Your task to perform on an android device: Open the stopwatch Image 0: 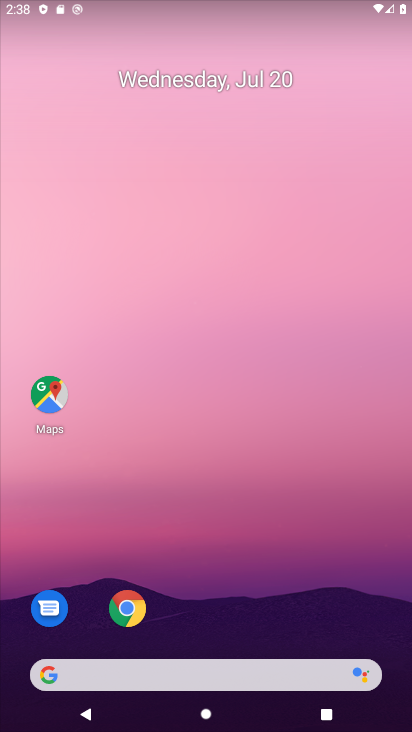
Step 0: drag from (278, 627) to (208, 78)
Your task to perform on an android device: Open the stopwatch Image 1: 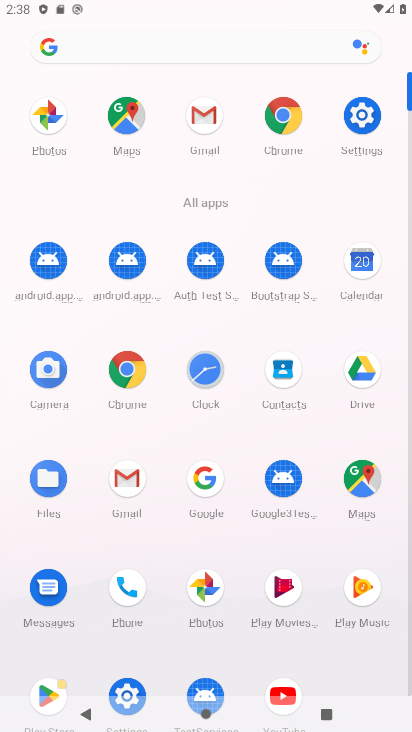
Step 1: click (196, 362)
Your task to perform on an android device: Open the stopwatch Image 2: 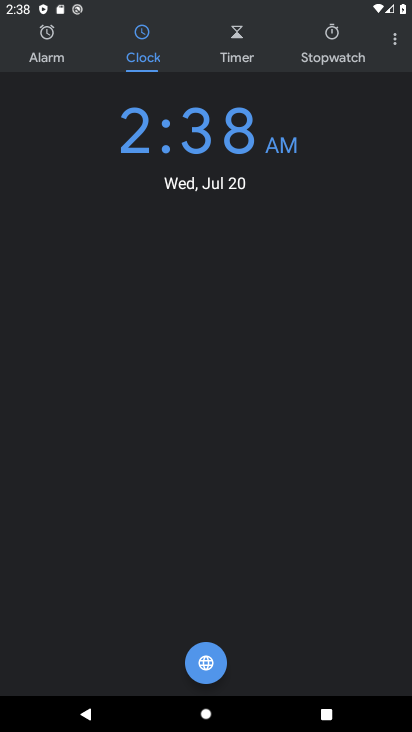
Step 2: click (320, 35)
Your task to perform on an android device: Open the stopwatch Image 3: 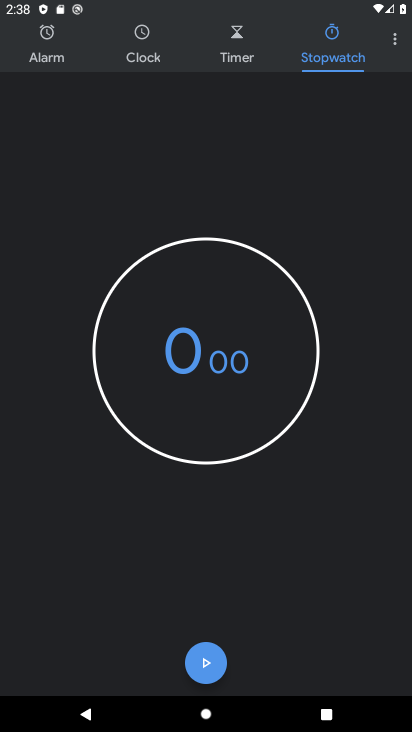
Step 3: task complete